Your task to perform on an android device: see sites visited before in the chrome app Image 0: 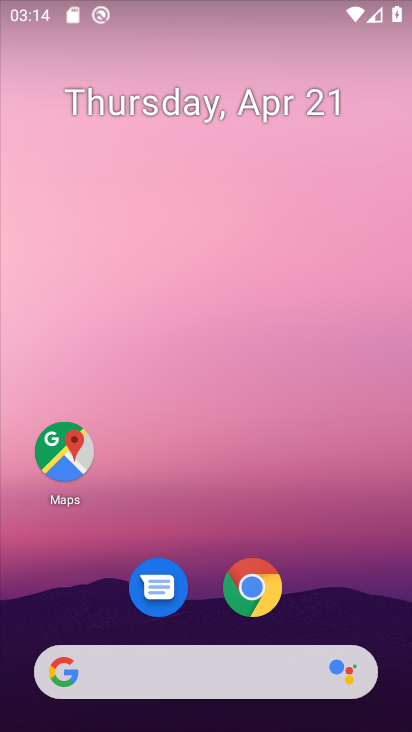
Step 0: drag from (344, 588) to (349, 171)
Your task to perform on an android device: see sites visited before in the chrome app Image 1: 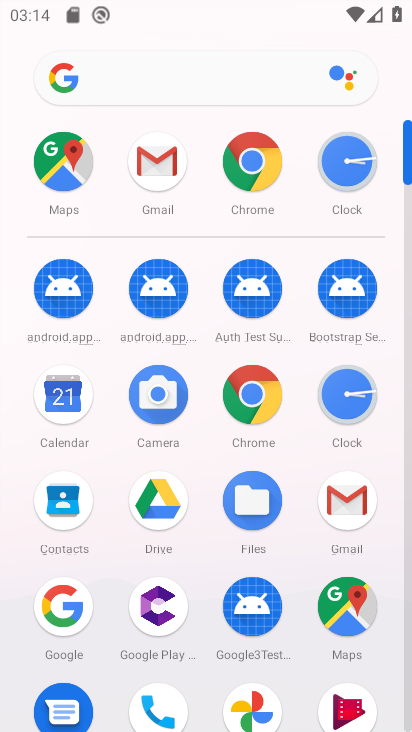
Step 1: click (272, 400)
Your task to perform on an android device: see sites visited before in the chrome app Image 2: 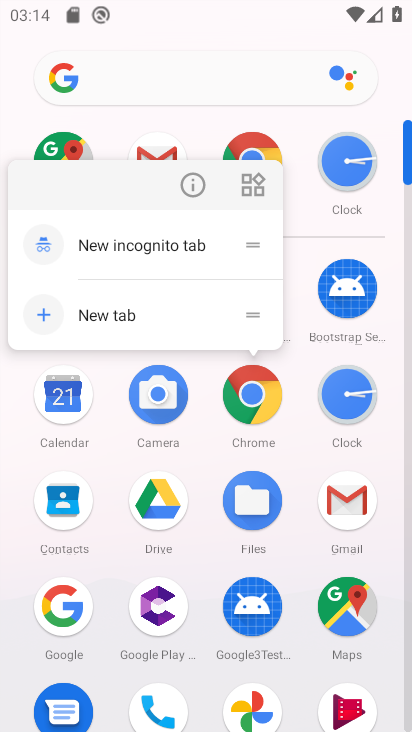
Step 2: click (274, 400)
Your task to perform on an android device: see sites visited before in the chrome app Image 3: 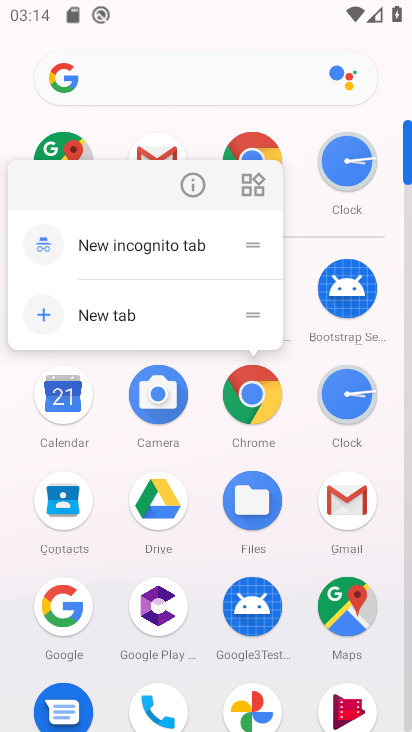
Step 3: click (270, 400)
Your task to perform on an android device: see sites visited before in the chrome app Image 4: 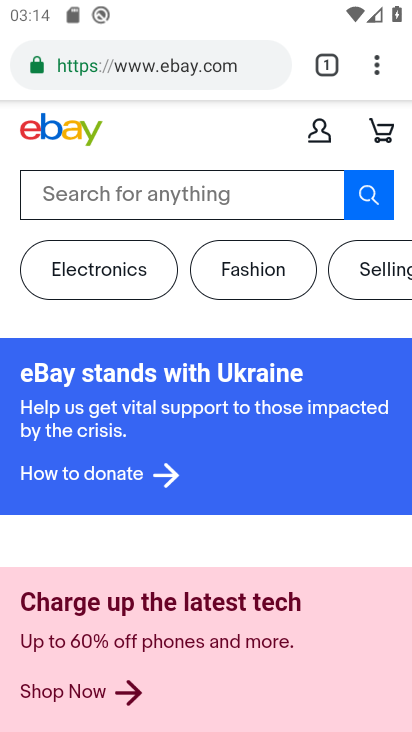
Step 4: click (378, 66)
Your task to perform on an android device: see sites visited before in the chrome app Image 5: 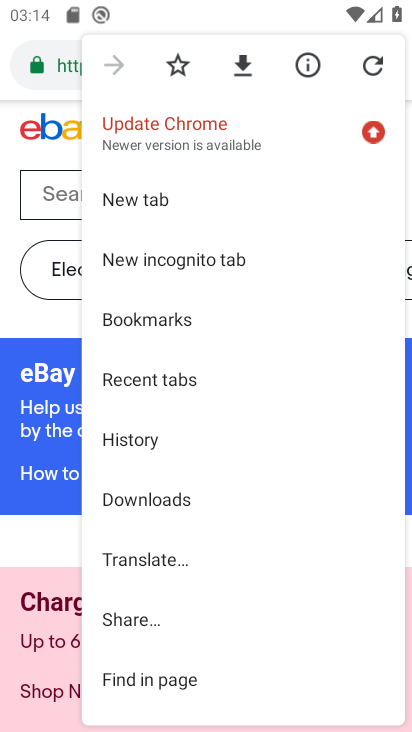
Step 5: drag from (310, 594) to (321, 476)
Your task to perform on an android device: see sites visited before in the chrome app Image 6: 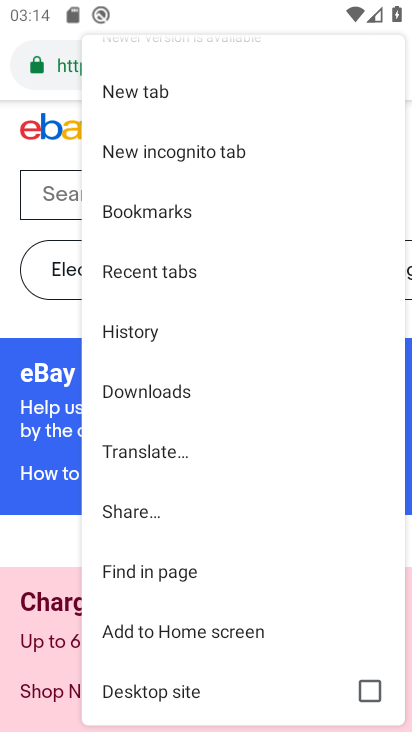
Step 6: drag from (305, 641) to (327, 462)
Your task to perform on an android device: see sites visited before in the chrome app Image 7: 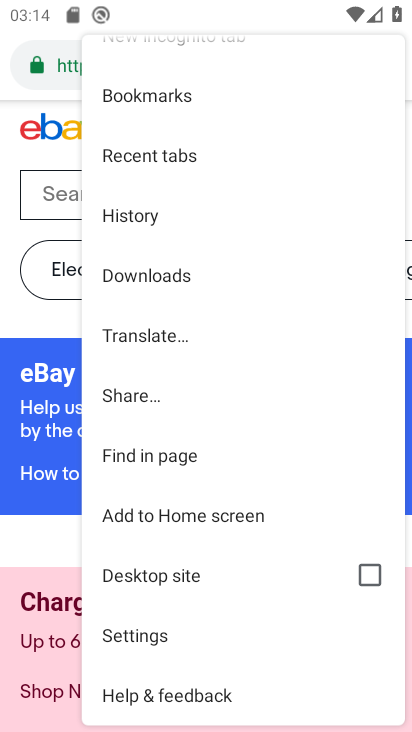
Step 7: drag from (291, 606) to (299, 443)
Your task to perform on an android device: see sites visited before in the chrome app Image 8: 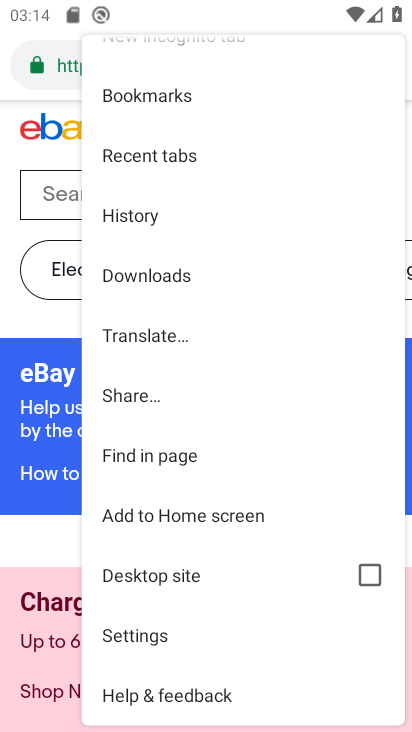
Step 8: drag from (287, 347) to (284, 456)
Your task to perform on an android device: see sites visited before in the chrome app Image 9: 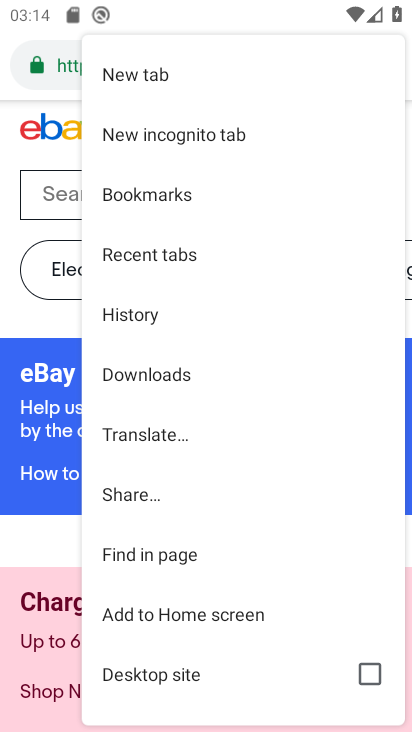
Step 9: drag from (285, 328) to (269, 456)
Your task to perform on an android device: see sites visited before in the chrome app Image 10: 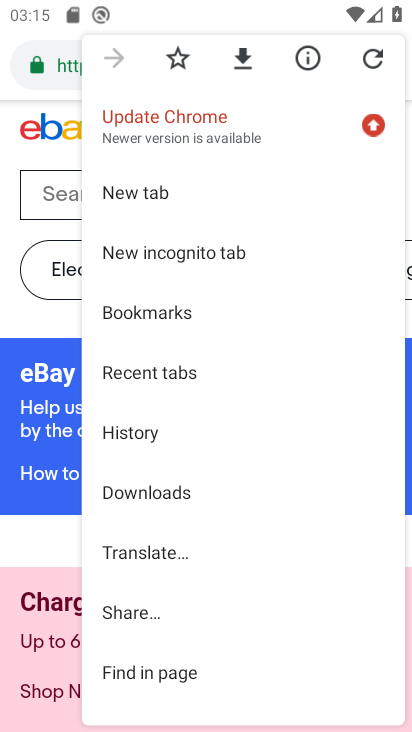
Step 10: click (175, 450)
Your task to perform on an android device: see sites visited before in the chrome app Image 11: 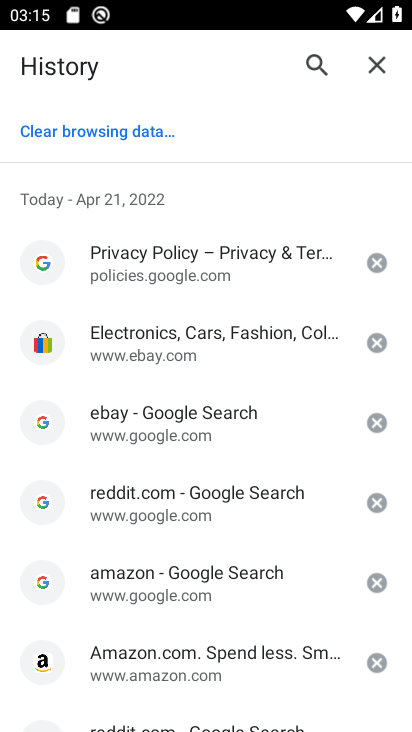
Step 11: task complete